Your task to perform on an android device: open chrome privacy settings Image 0: 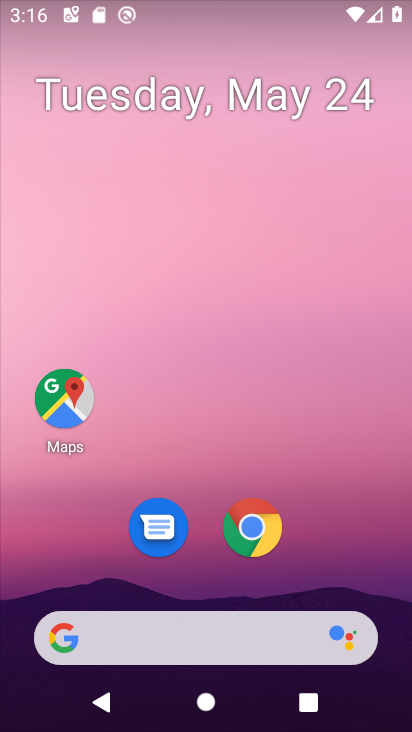
Step 0: click (260, 536)
Your task to perform on an android device: open chrome privacy settings Image 1: 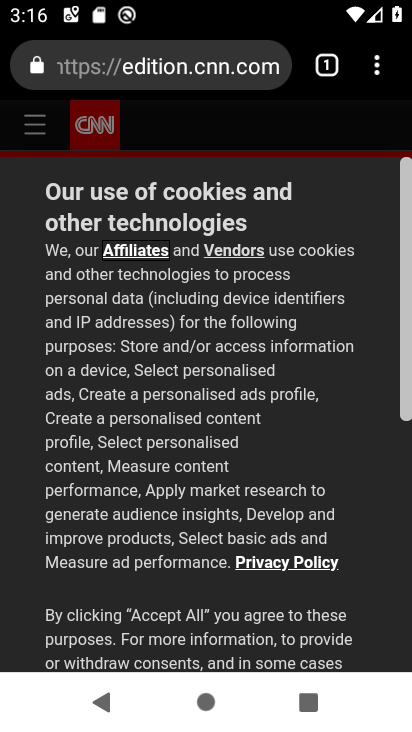
Step 1: click (380, 71)
Your task to perform on an android device: open chrome privacy settings Image 2: 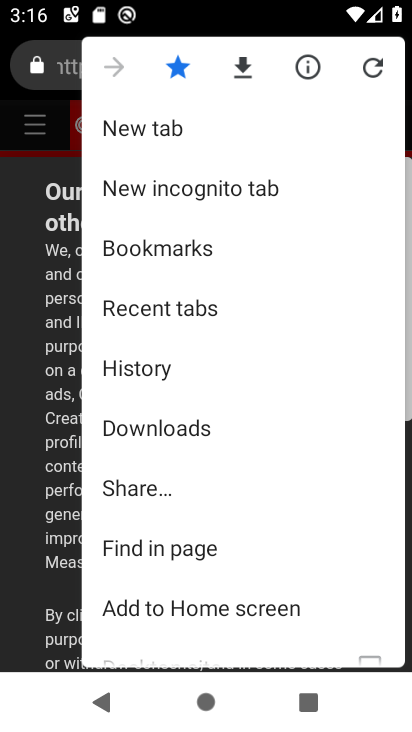
Step 2: drag from (272, 523) to (267, 212)
Your task to perform on an android device: open chrome privacy settings Image 3: 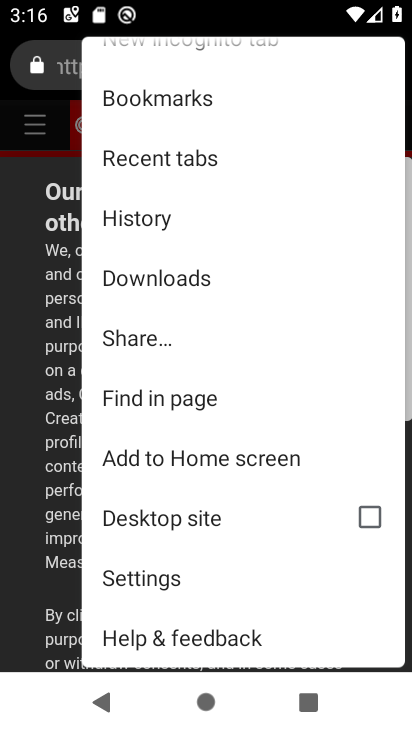
Step 3: click (140, 580)
Your task to perform on an android device: open chrome privacy settings Image 4: 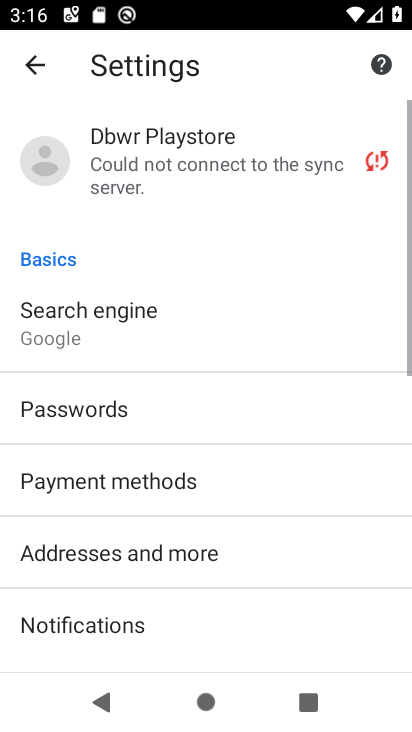
Step 4: drag from (220, 593) to (216, 266)
Your task to perform on an android device: open chrome privacy settings Image 5: 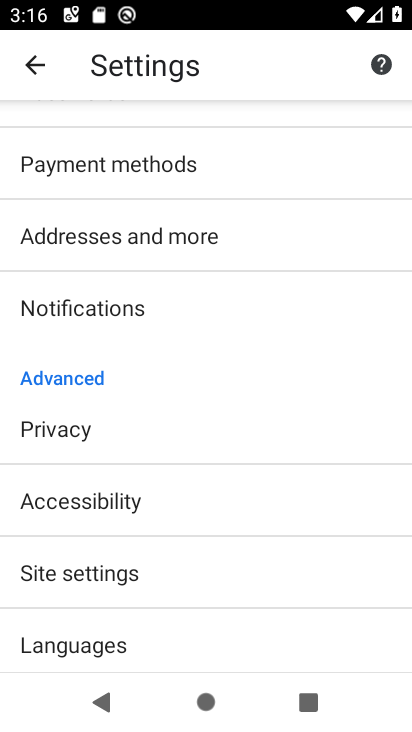
Step 5: click (45, 429)
Your task to perform on an android device: open chrome privacy settings Image 6: 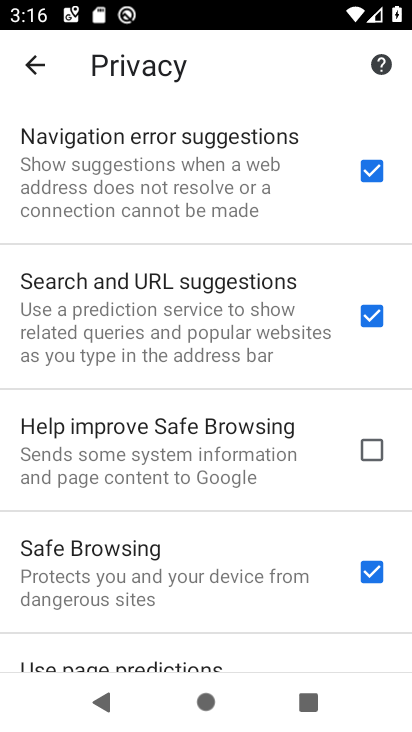
Step 6: task complete